Your task to perform on an android device: Show the shopping cart on ebay. Add "acer nitro" to the cart on ebay, then select checkout. Image 0: 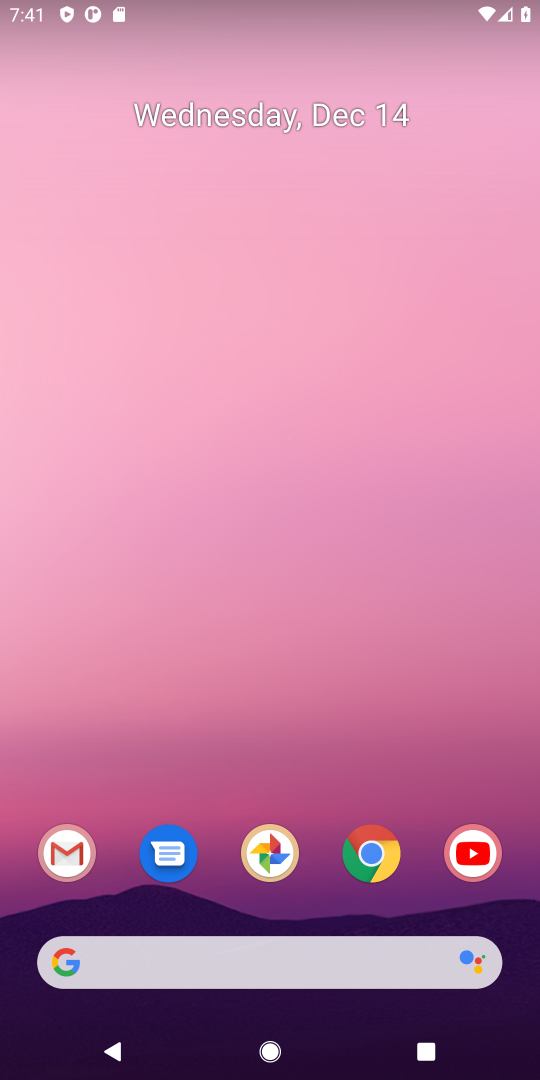
Step 0: click (397, 849)
Your task to perform on an android device: Show the shopping cart on ebay. Add "acer nitro" to the cart on ebay, then select checkout. Image 1: 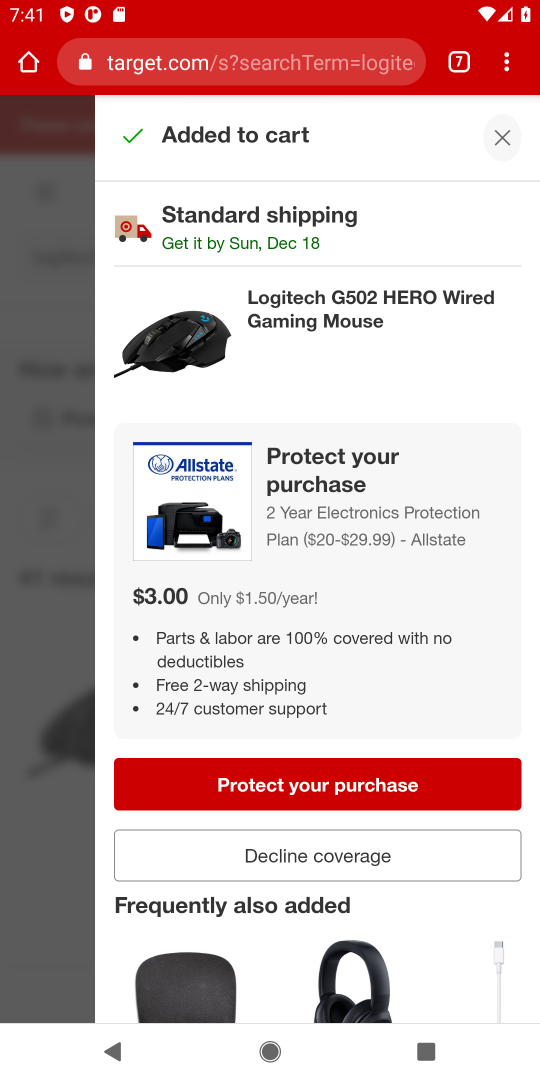
Step 1: click (466, 76)
Your task to perform on an android device: Show the shopping cart on ebay. Add "acer nitro" to the cart on ebay, then select checkout. Image 2: 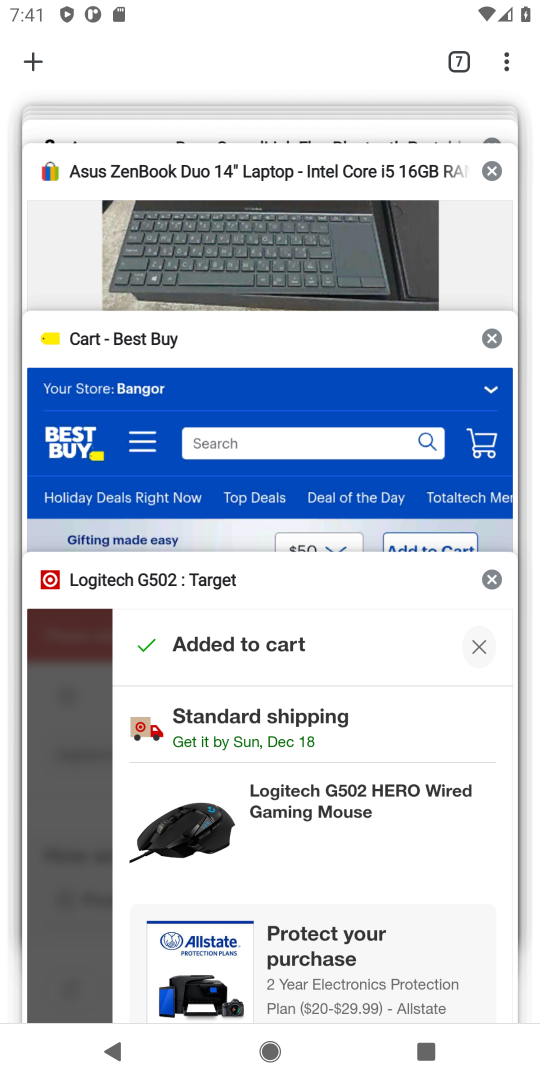
Step 2: click (233, 179)
Your task to perform on an android device: Show the shopping cart on ebay. Add "acer nitro" to the cart on ebay, then select checkout. Image 3: 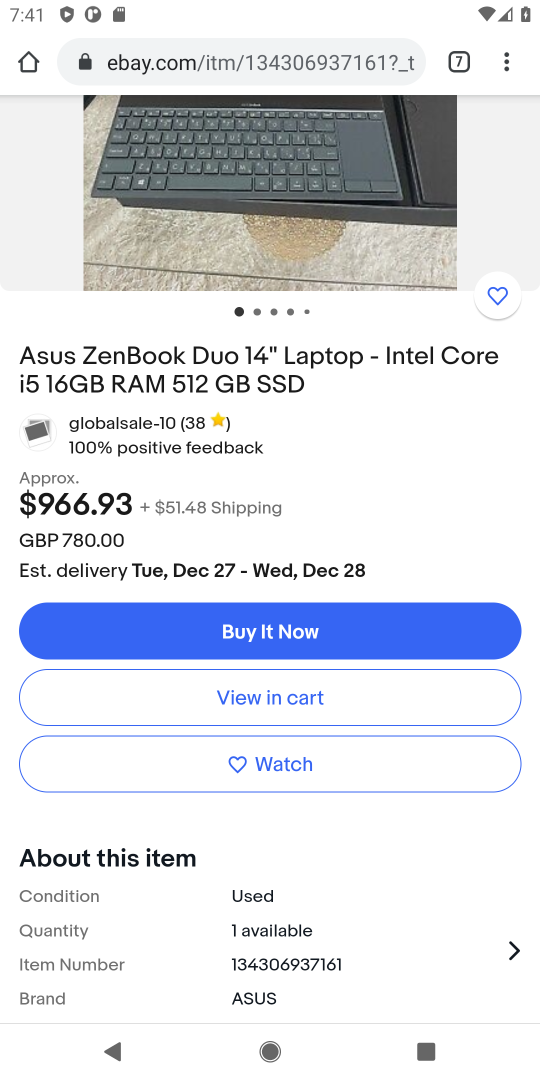
Step 3: drag from (478, 175) to (374, 695)
Your task to perform on an android device: Show the shopping cart on ebay. Add "acer nitro" to the cart on ebay, then select checkout. Image 4: 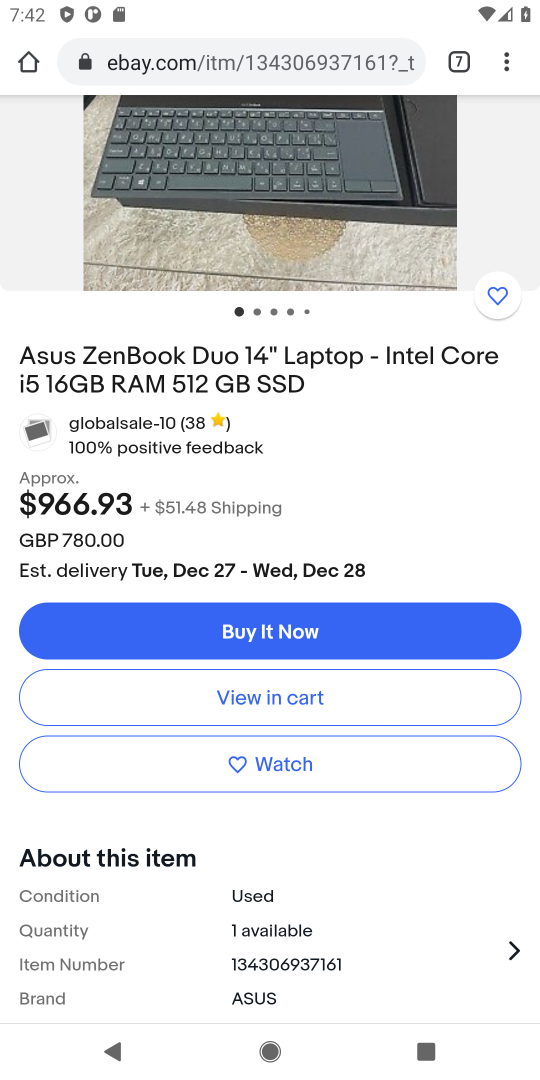
Step 4: click (254, 698)
Your task to perform on an android device: Show the shopping cart on ebay. Add "acer nitro" to the cart on ebay, then select checkout. Image 5: 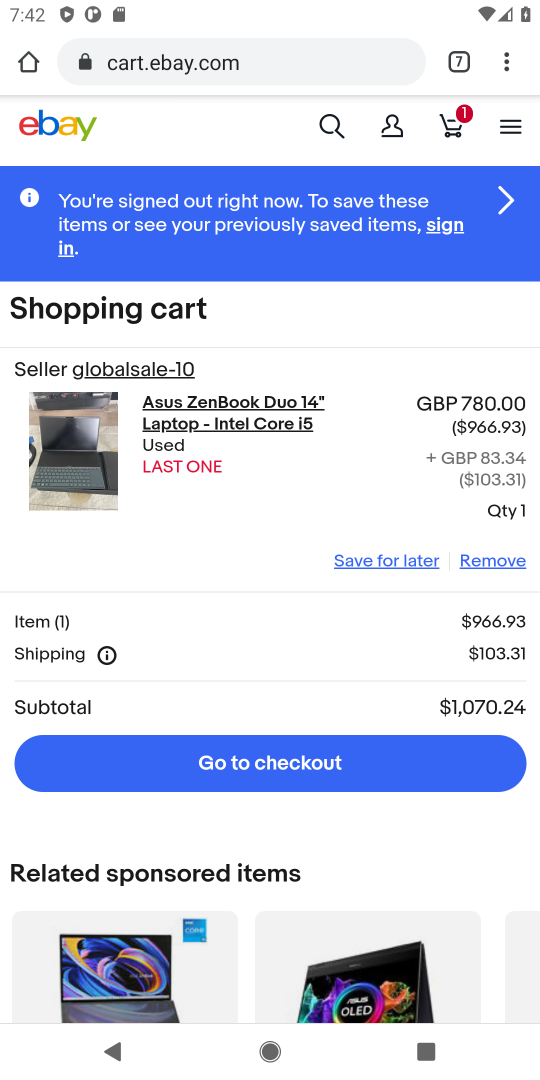
Step 5: click (327, 131)
Your task to perform on an android device: Show the shopping cart on ebay. Add "acer nitro" to the cart on ebay, then select checkout. Image 6: 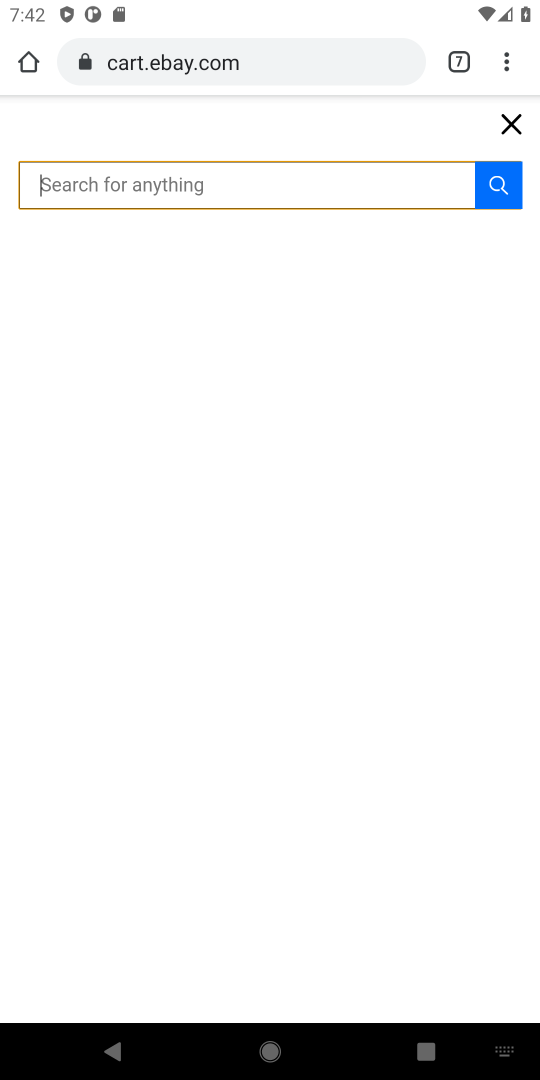
Step 6: type "acer nitro"
Your task to perform on an android device: Show the shopping cart on ebay. Add "acer nitro" to the cart on ebay, then select checkout. Image 7: 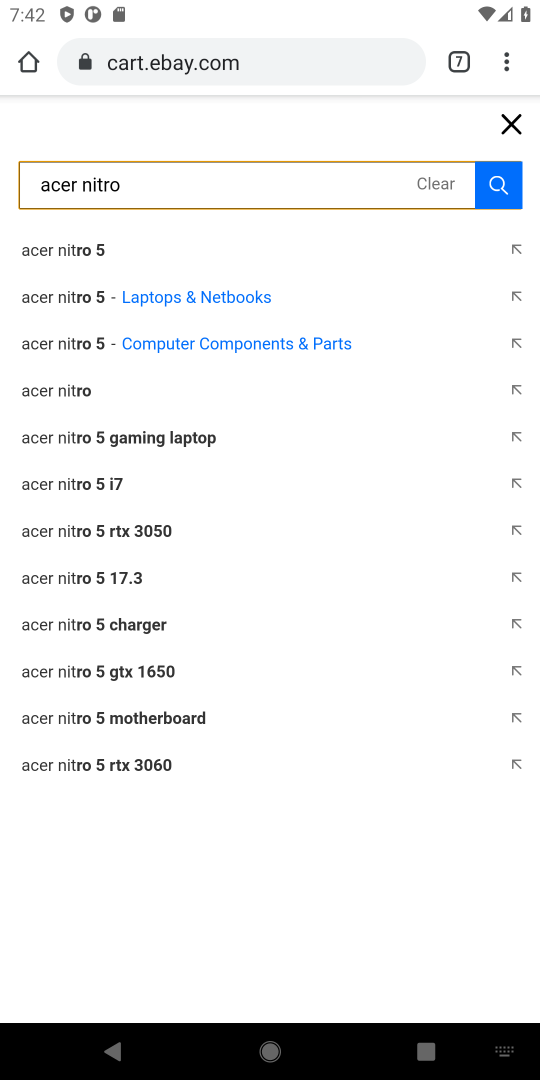
Step 7: click (88, 289)
Your task to perform on an android device: Show the shopping cart on ebay. Add "acer nitro" to the cart on ebay, then select checkout. Image 8: 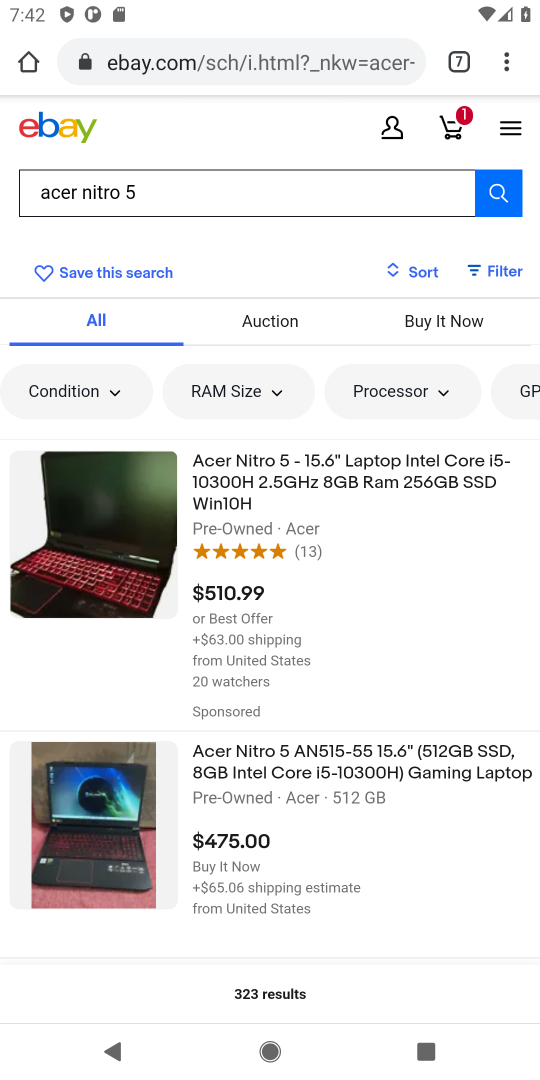
Step 8: click (238, 477)
Your task to perform on an android device: Show the shopping cart on ebay. Add "acer nitro" to the cart on ebay, then select checkout. Image 9: 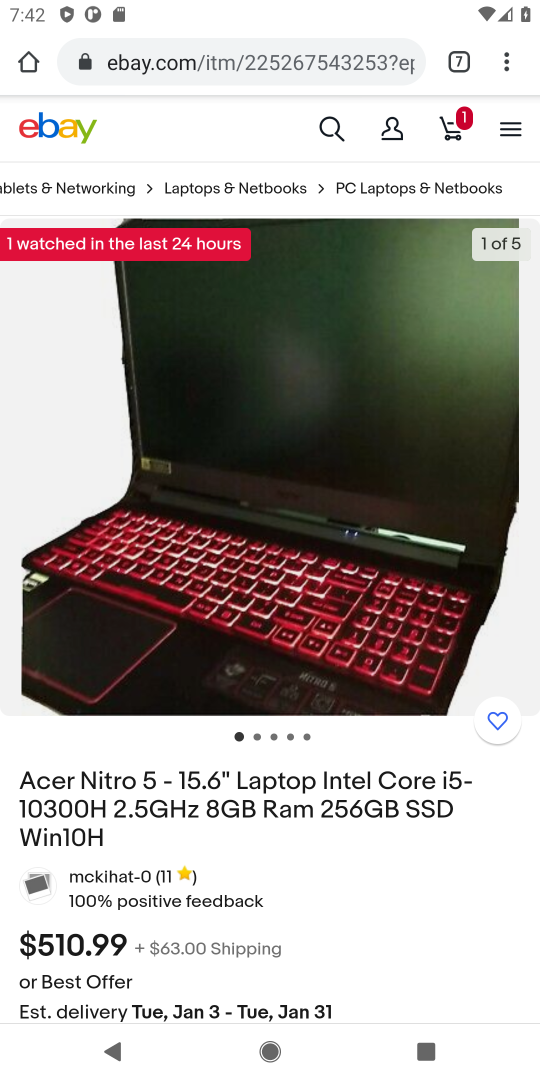
Step 9: drag from (358, 889) to (450, 306)
Your task to perform on an android device: Show the shopping cart on ebay. Add "acer nitro" to the cart on ebay, then select checkout. Image 10: 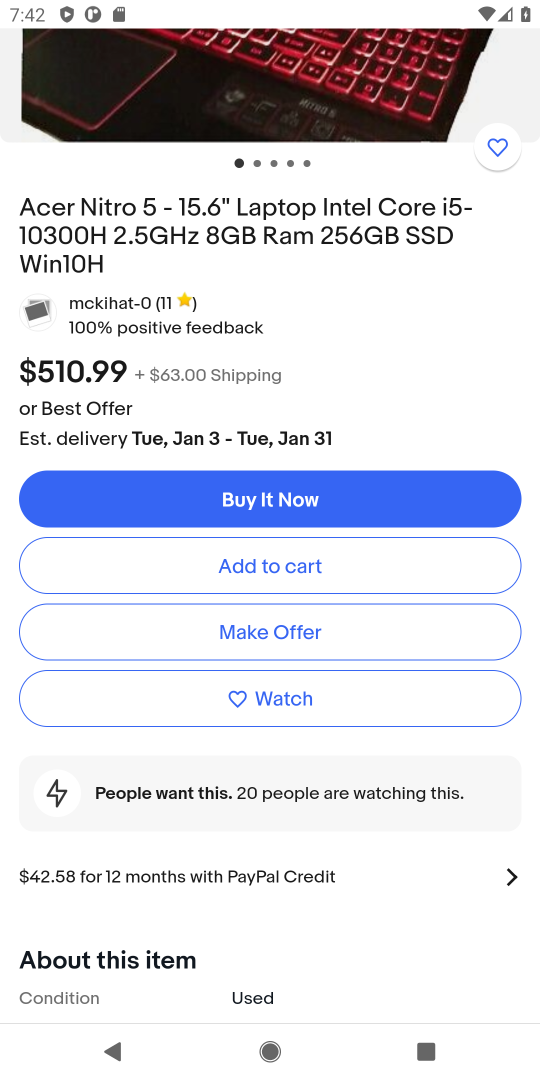
Step 10: click (326, 566)
Your task to perform on an android device: Show the shopping cart on ebay. Add "acer nitro" to the cart on ebay, then select checkout. Image 11: 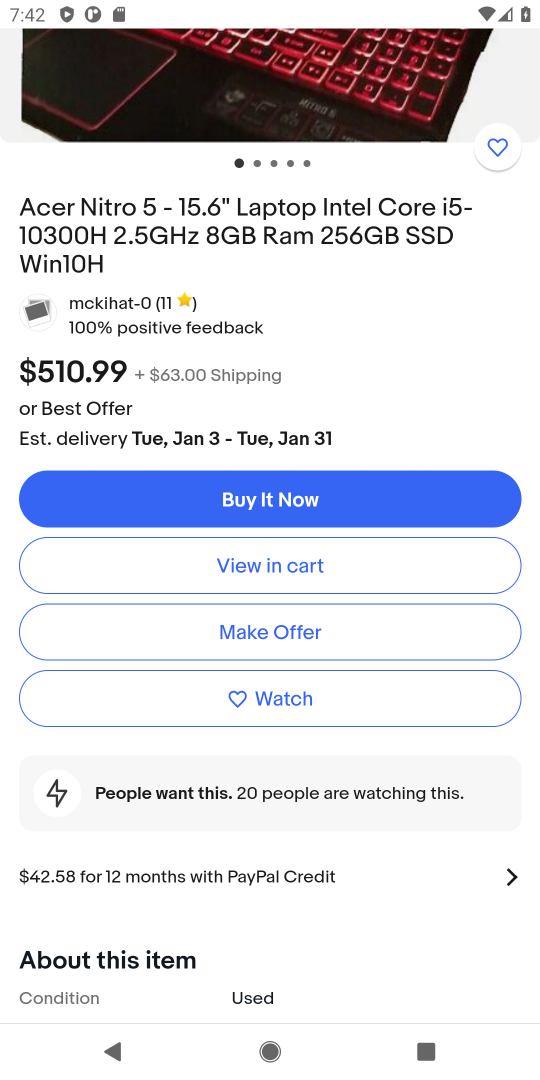
Step 11: click (280, 558)
Your task to perform on an android device: Show the shopping cart on ebay. Add "acer nitro" to the cart on ebay, then select checkout. Image 12: 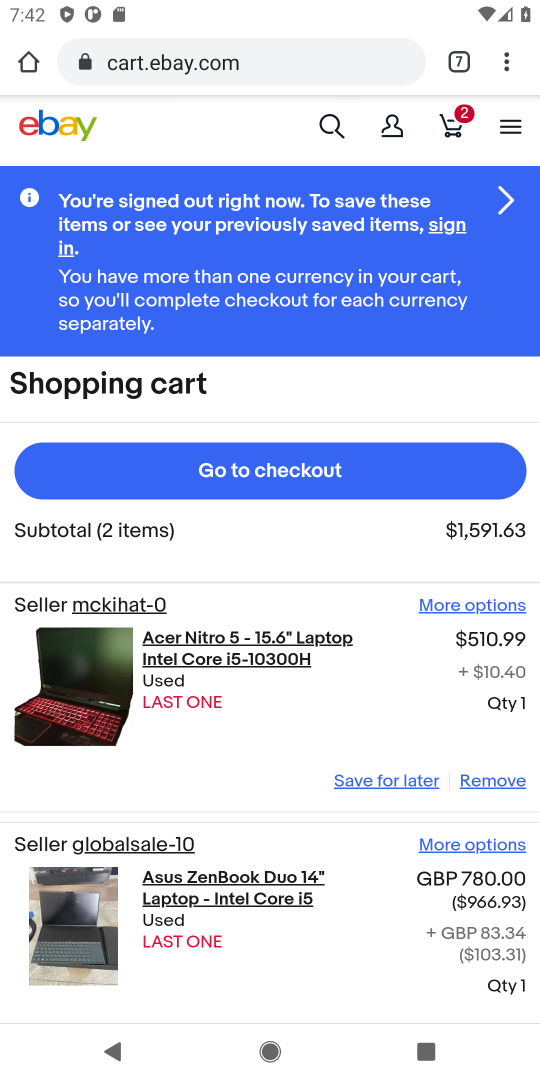
Step 12: click (404, 469)
Your task to perform on an android device: Show the shopping cart on ebay. Add "acer nitro" to the cart on ebay, then select checkout. Image 13: 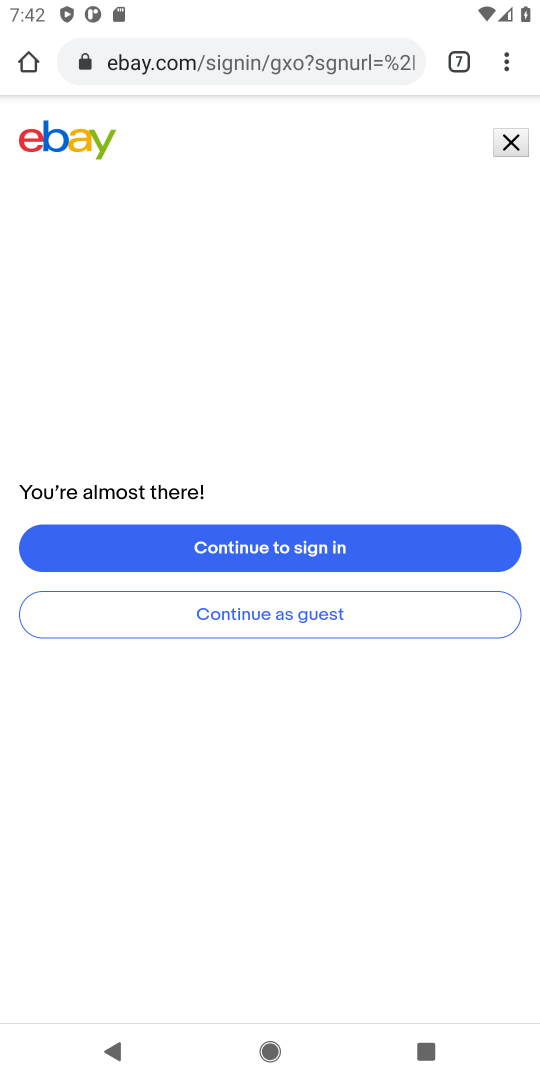
Step 13: task complete